Your task to perform on an android device: Show me popular games on the Play Store Image 0: 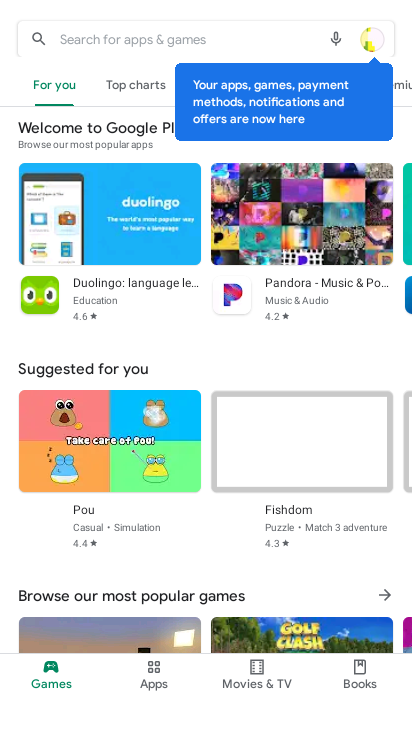
Step 0: press home button
Your task to perform on an android device: Show me popular games on the Play Store Image 1: 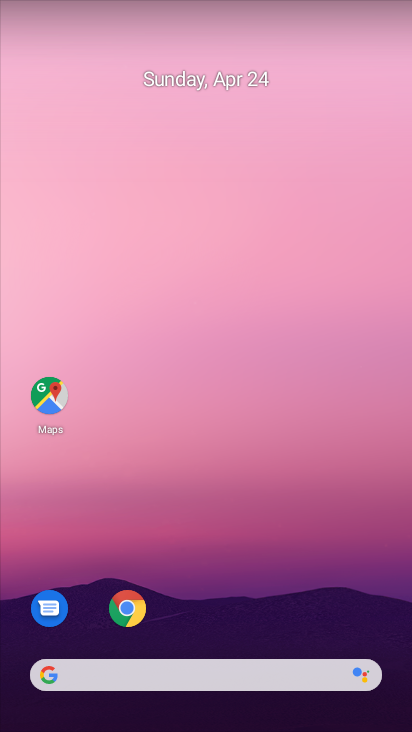
Step 1: drag from (242, 601) to (275, 74)
Your task to perform on an android device: Show me popular games on the Play Store Image 2: 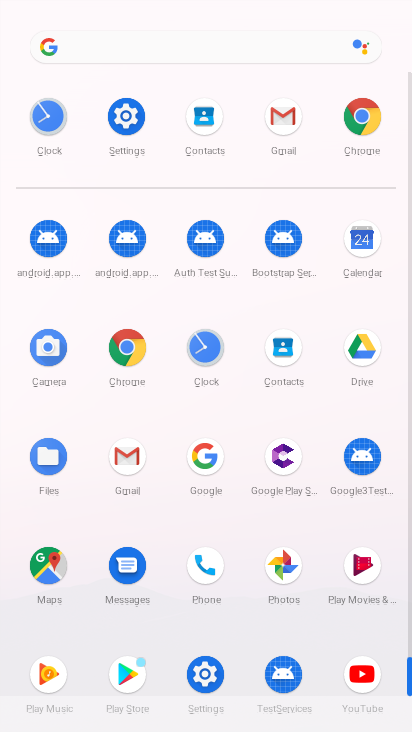
Step 2: click (133, 665)
Your task to perform on an android device: Show me popular games on the Play Store Image 3: 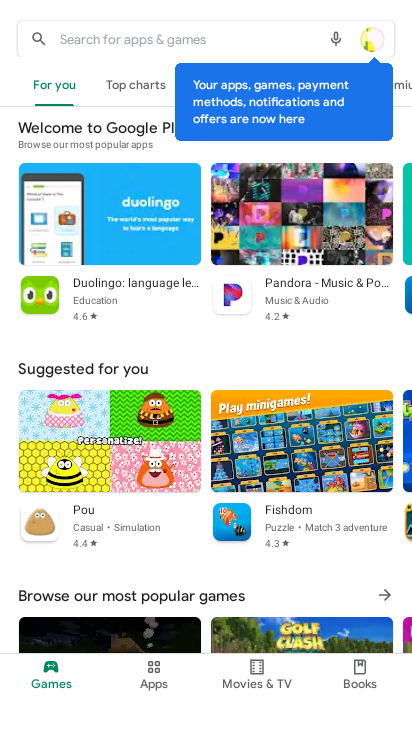
Step 3: click (51, 673)
Your task to perform on an android device: Show me popular games on the Play Store Image 4: 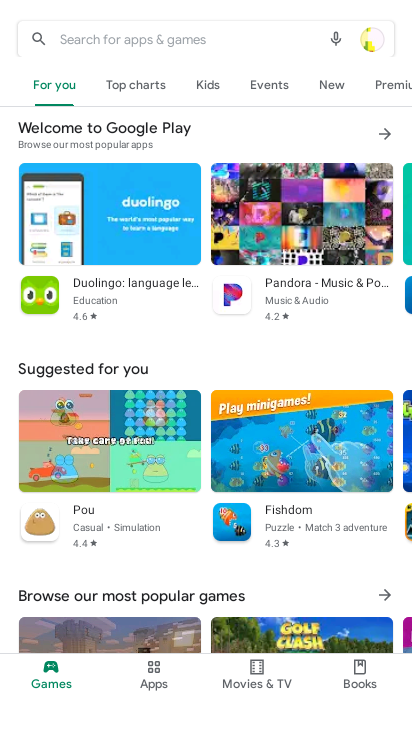
Step 4: drag from (304, 543) to (332, 112)
Your task to perform on an android device: Show me popular games on the Play Store Image 5: 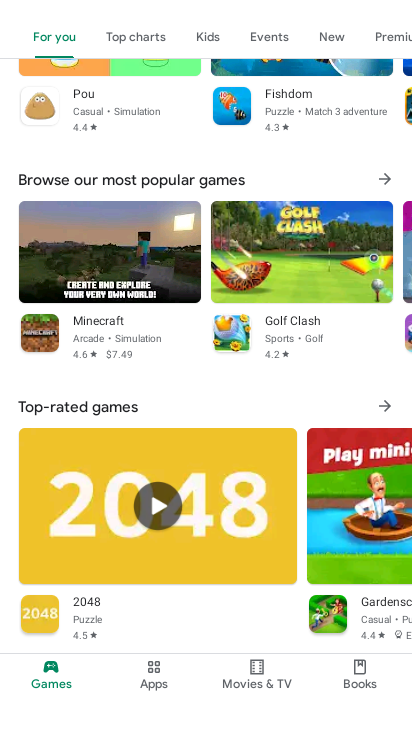
Step 5: click (134, 257)
Your task to perform on an android device: Show me popular games on the Play Store Image 6: 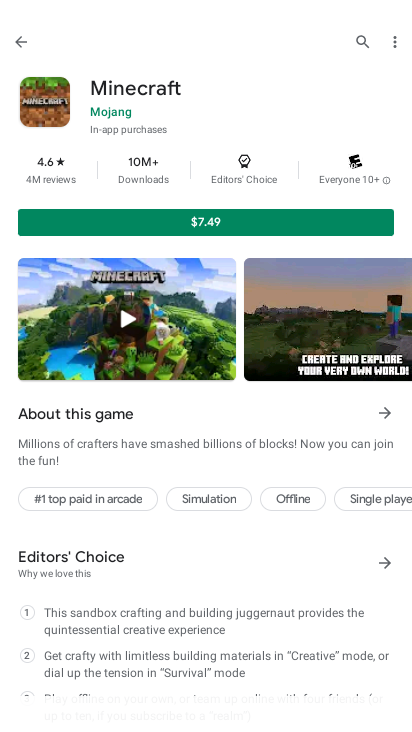
Step 6: task complete